Your task to perform on an android device: turn off notifications in google photos Image 0: 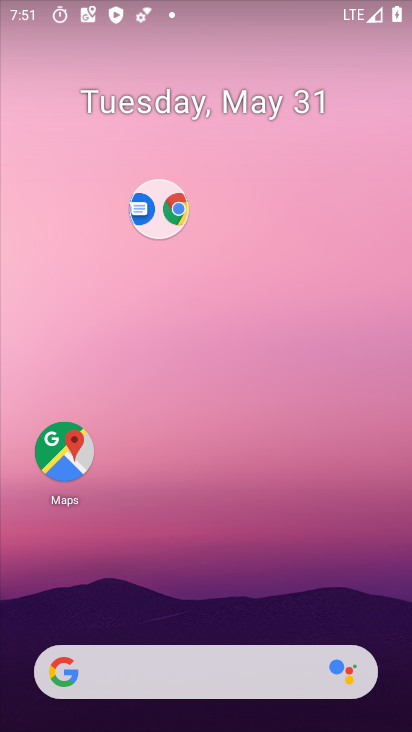
Step 0: drag from (216, 615) to (272, 1)
Your task to perform on an android device: turn off notifications in google photos Image 1: 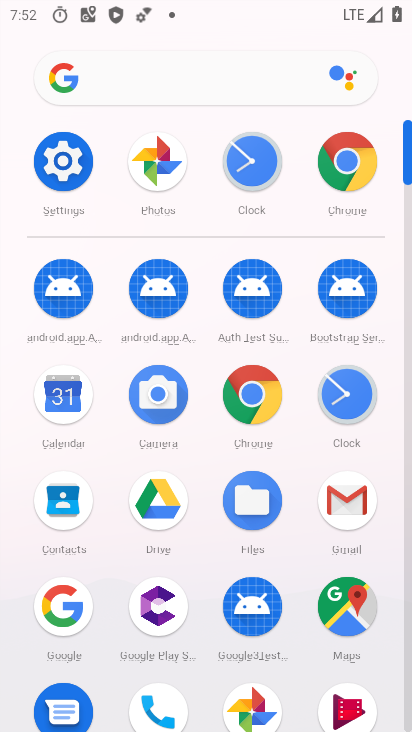
Step 1: click (155, 169)
Your task to perform on an android device: turn off notifications in google photos Image 2: 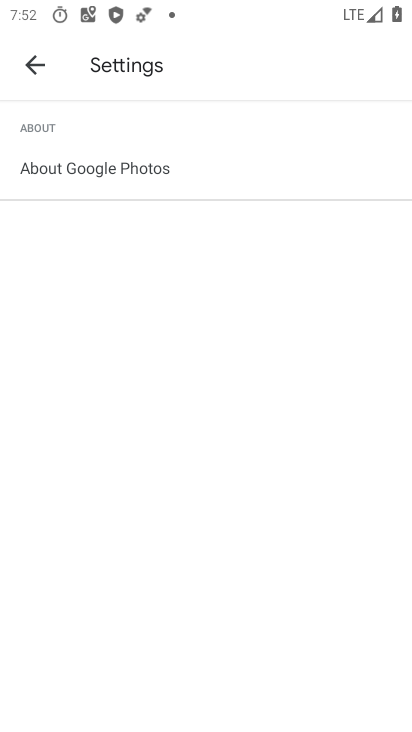
Step 2: click (34, 68)
Your task to perform on an android device: turn off notifications in google photos Image 3: 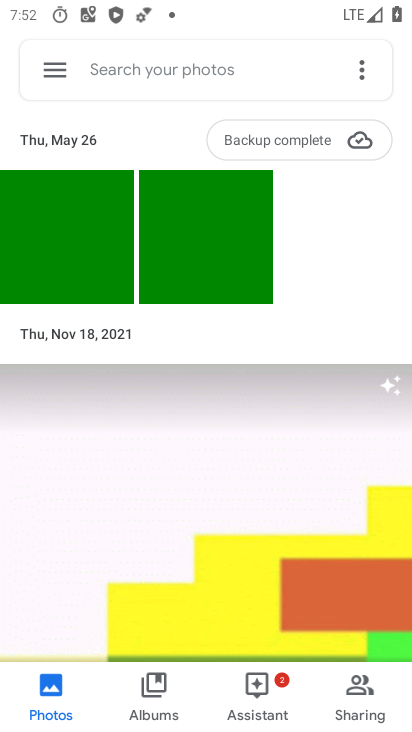
Step 3: click (50, 66)
Your task to perform on an android device: turn off notifications in google photos Image 4: 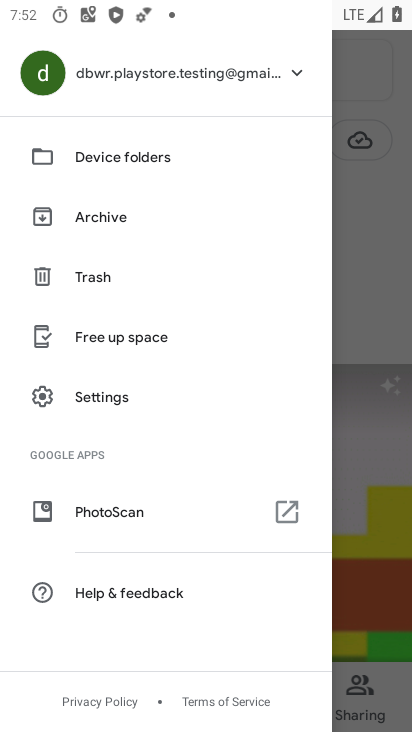
Step 4: click (103, 398)
Your task to perform on an android device: turn off notifications in google photos Image 5: 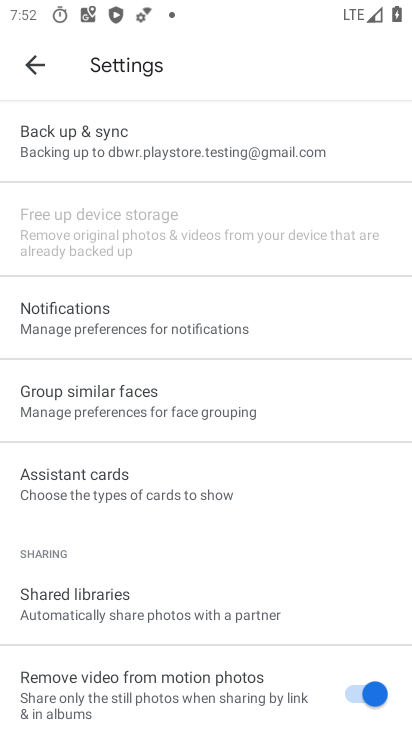
Step 5: click (124, 330)
Your task to perform on an android device: turn off notifications in google photos Image 6: 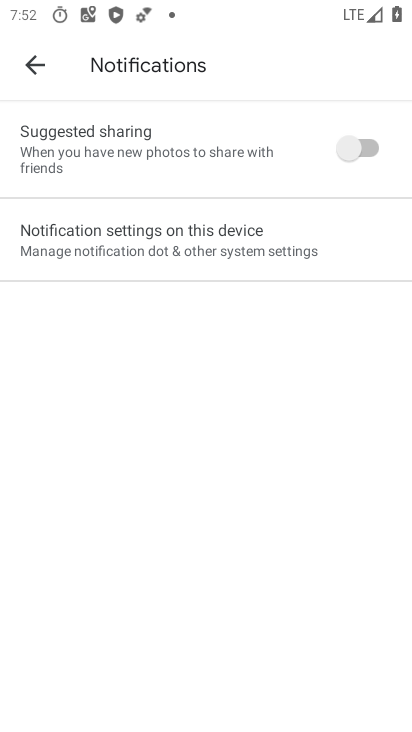
Step 6: click (225, 236)
Your task to perform on an android device: turn off notifications in google photos Image 7: 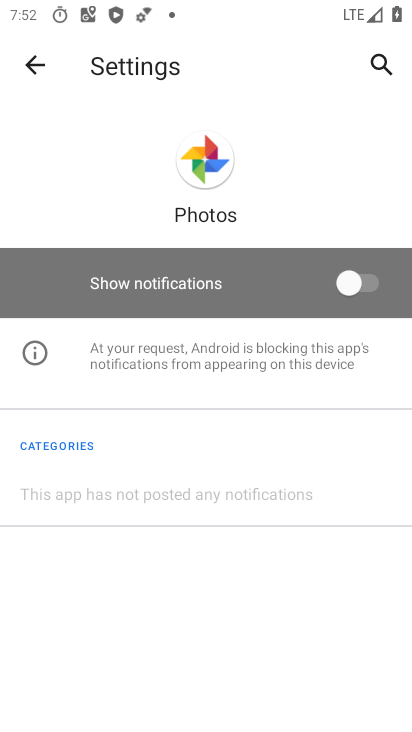
Step 7: task complete